Your task to perform on an android device: Open eBay Image 0: 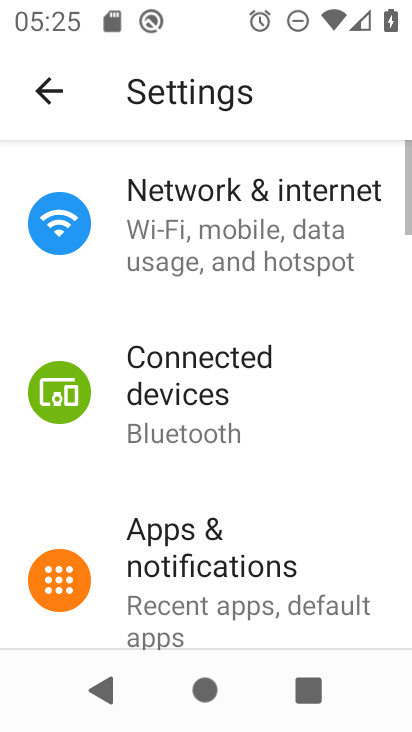
Step 0: press home button
Your task to perform on an android device: Open eBay Image 1: 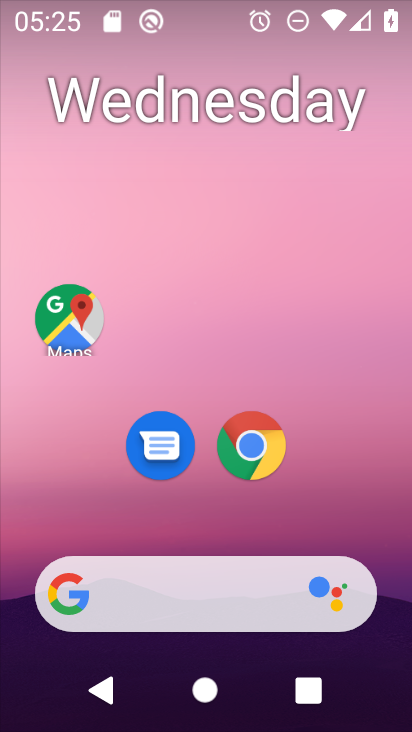
Step 1: click (267, 584)
Your task to perform on an android device: Open eBay Image 2: 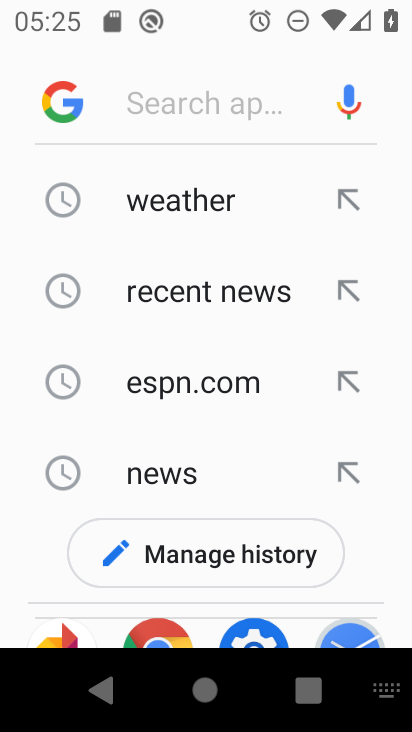
Step 2: type "ebay"
Your task to perform on an android device: Open eBay Image 3: 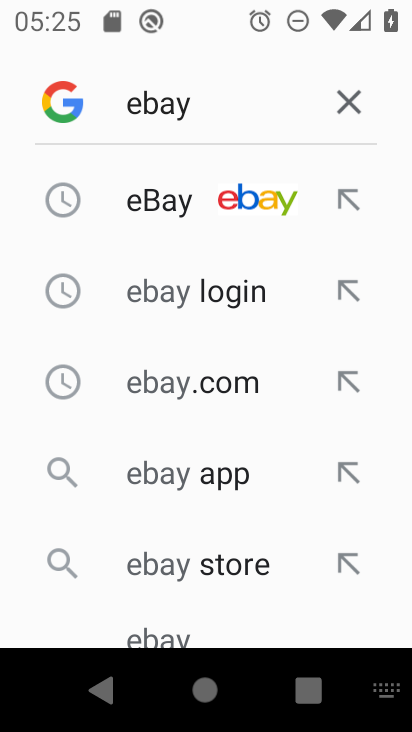
Step 3: click (230, 215)
Your task to perform on an android device: Open eBay Image 4: 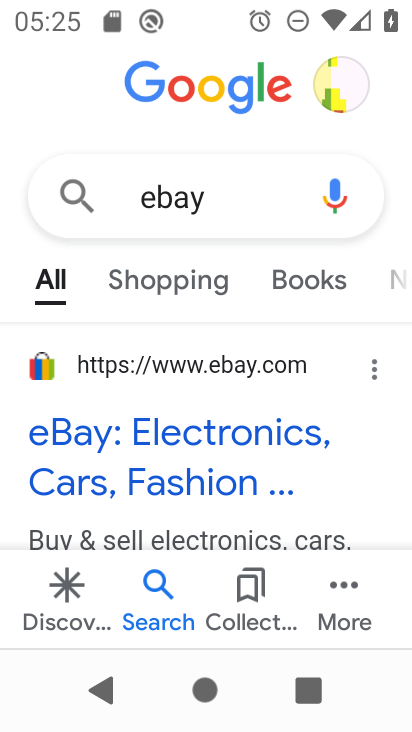
Step 4: click (160, 426)
Your task to perform on an android device: Open eBay Image 5: 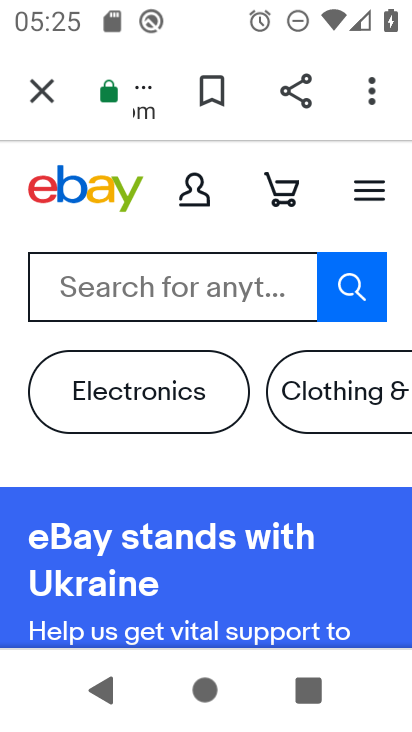
Step 5: task complete